Your task to perform on an android device: Do I have any events today? Image 0: 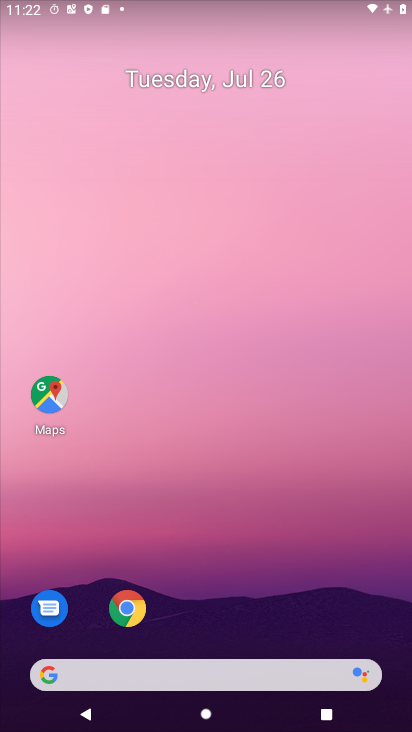
Step 0: drag from (260, 514) to (226, 33)
Your task to perform on an android device: Do I have any events today? Image 1: 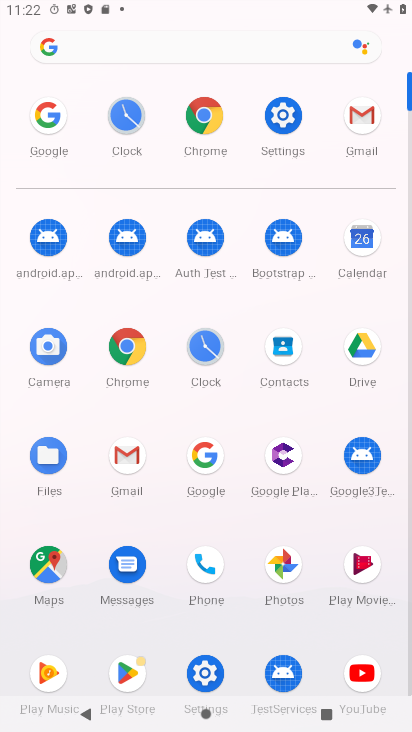
Step 1: click (353, 254)
Your task to perform on an android device: Do I have any events today? Image 2: 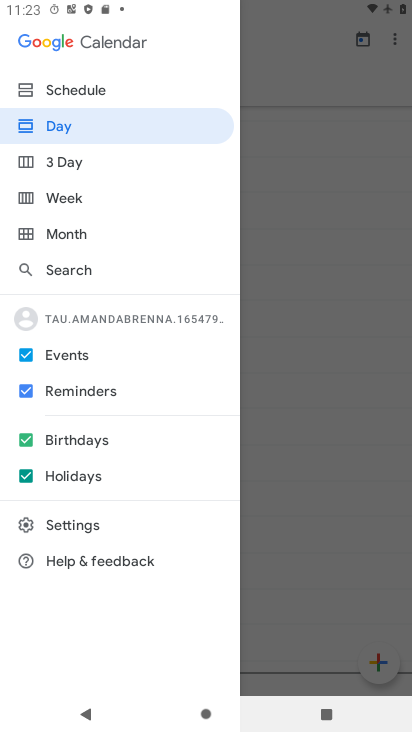
Step 2: click (266, 193)
Your task to perform on an android device: Do I have any events today? Image 3: 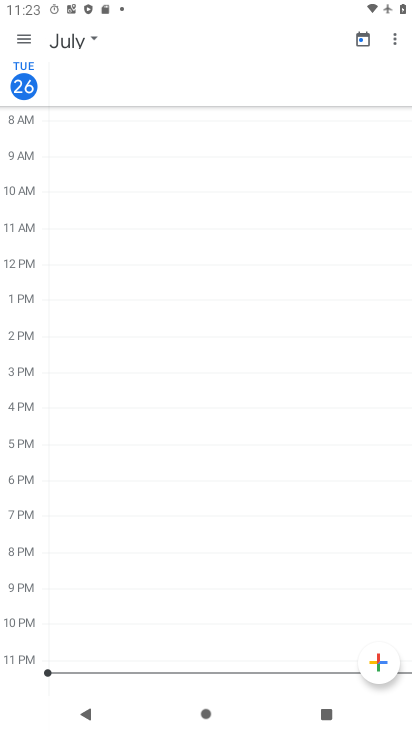
Step 3: click (90, 38)
Your task to perform on an android device: Do I have any events today? Image 4: 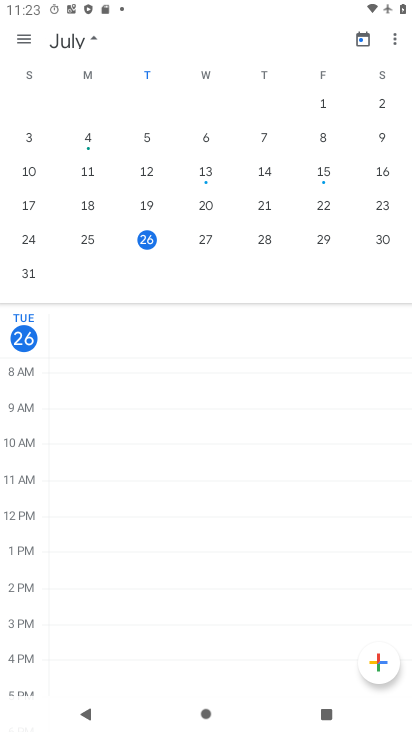
Step 4: click (144, 237)
Your task to perform on an android device: Do I have any events today? Image 5: 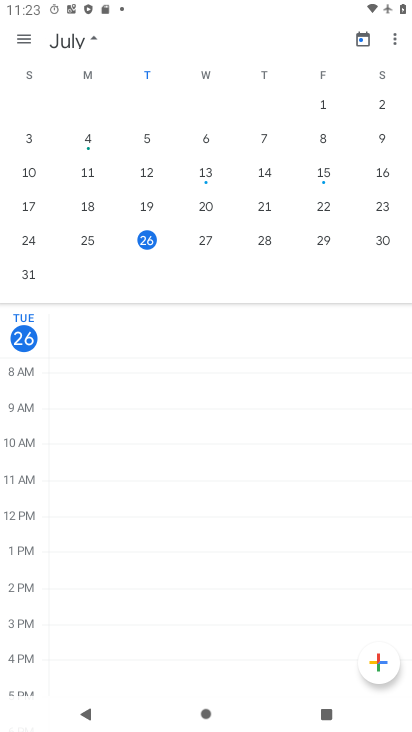
Step 5: task complete